Your task to perform on an android device: Set the phone to "Do not disturb". Image 0: 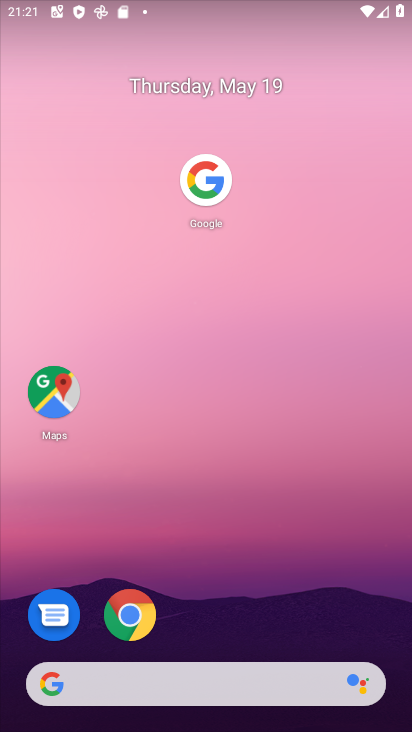
Step 0: drag from (238, 600) to (245, 32)
Your task to perform on an android device: Set the phone to "Do not disturb". Image 1: 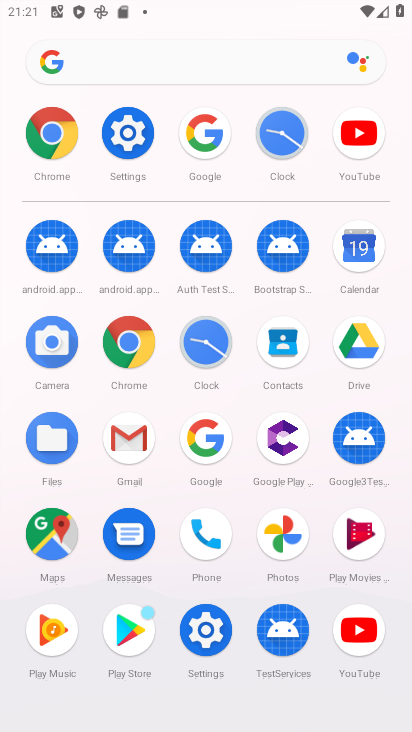
Step 1: click (131, 131)
Your task to perform on an android device: Set the phone to "Do not disturb". Image 2: 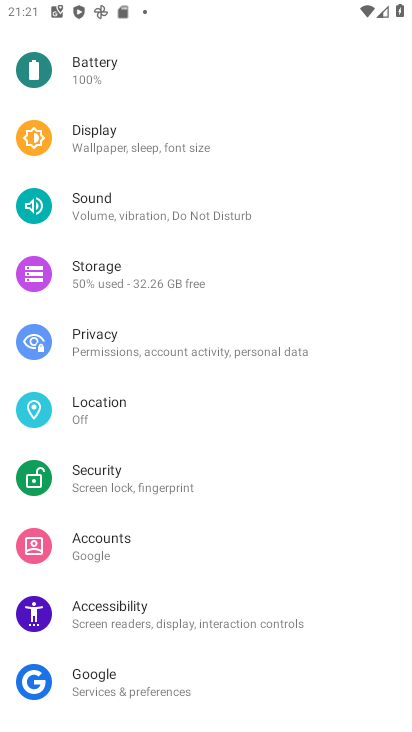
Step 2: click (140, 205)
Your task to perform on an android device: Set the phone to "Do not disturb". Image 3: 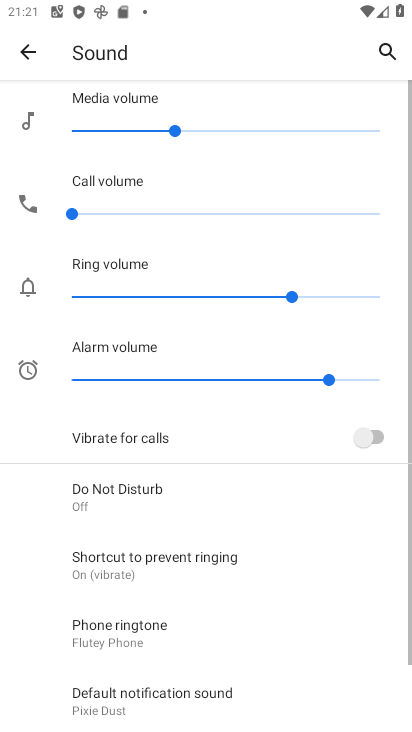
Step 3: click (164, 487)
Your task to perform on an android device: Set the phone to "Do not disturb". Image 4: 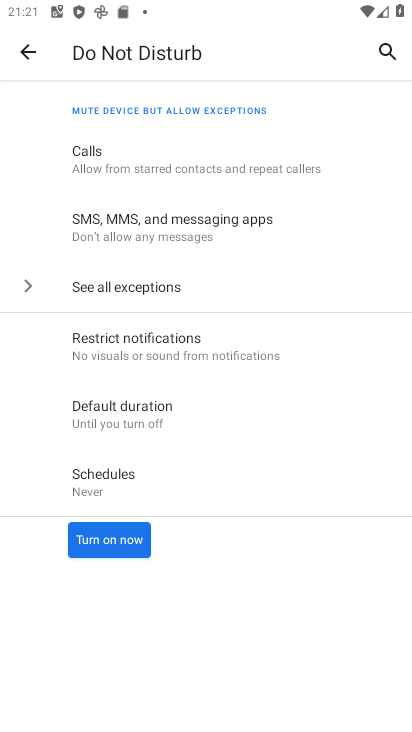
Step 4: click (109, 534)
Your task to perform on an android device: Set the phone to "Do not disturb". Image 5: 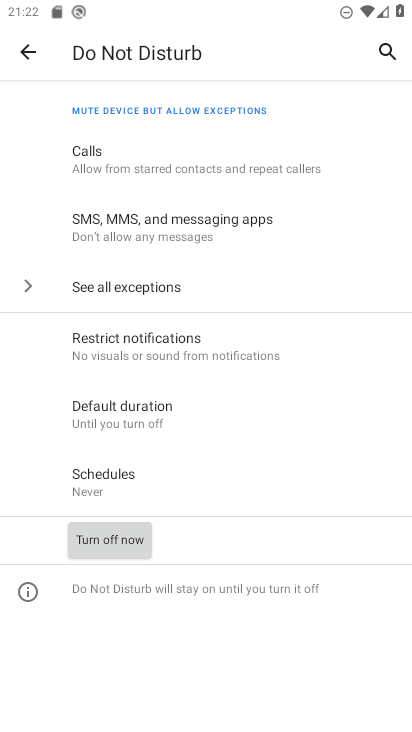
Step 5: task complete